Your task to perform on an android device: Open wifi settings Image 0: 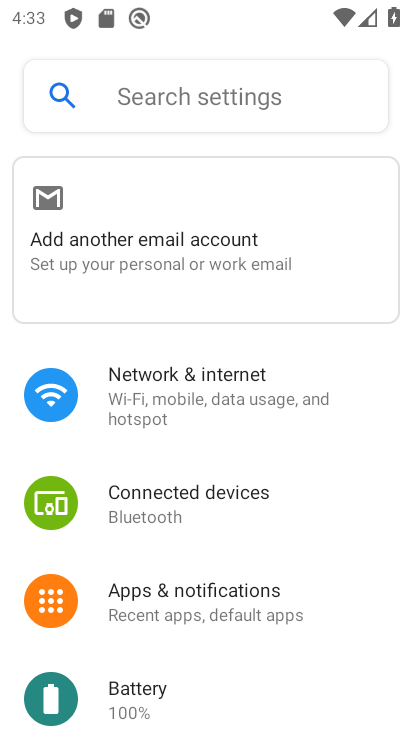
Step 0: click (232, 409)
Your task to perform on an android device: Open wifi settings Image 1: 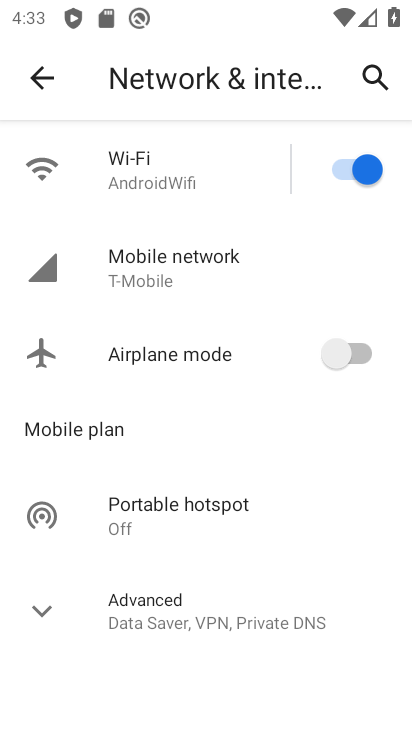
Step 1: click (221, 167)
Your task to perform on an android device: Open wifi settings Image 2: 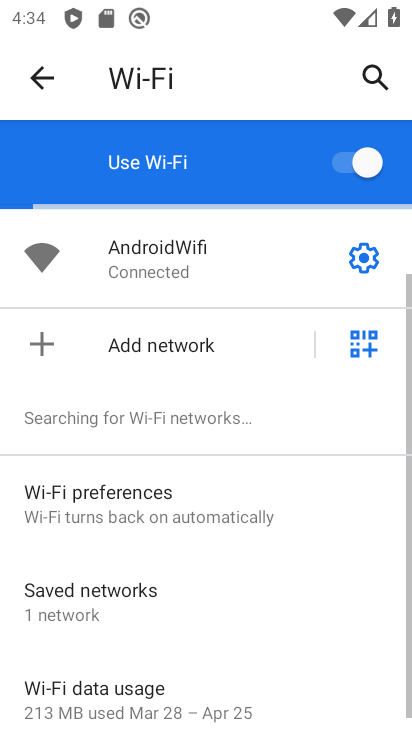
Step 2: task complete